Your task to perform on an android device: Open Google Chrome Image 0: 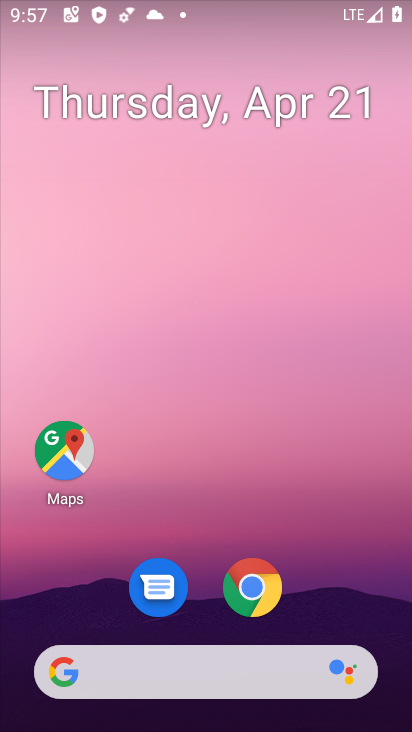
Step 0: drag from (339, 597) to (338, 116)
Your task to perform on an android device: Open Google Chrome Image 1: 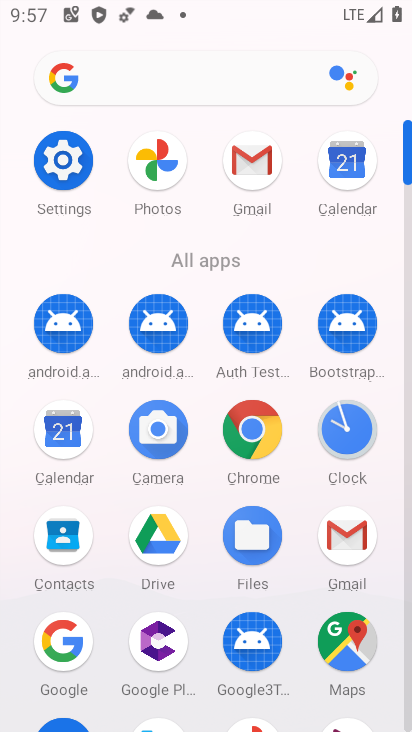
Step 1: click (278, 420)
Your task to perform on an android device: Open Google Chrome Image 2: 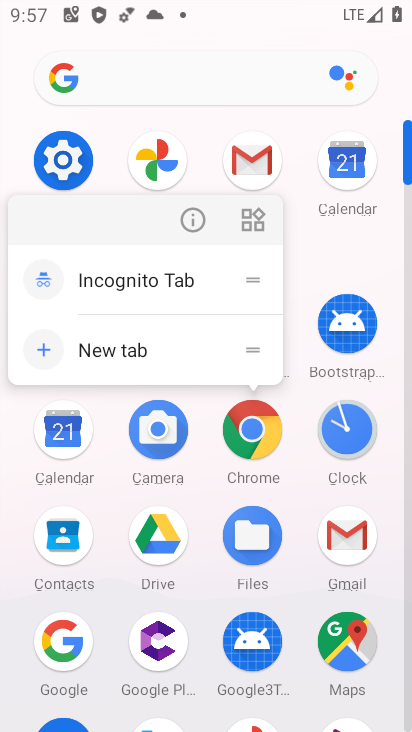
Step 2: click (254, 444)
Your task to perform on an android device: Open Google Chrome Image 3: 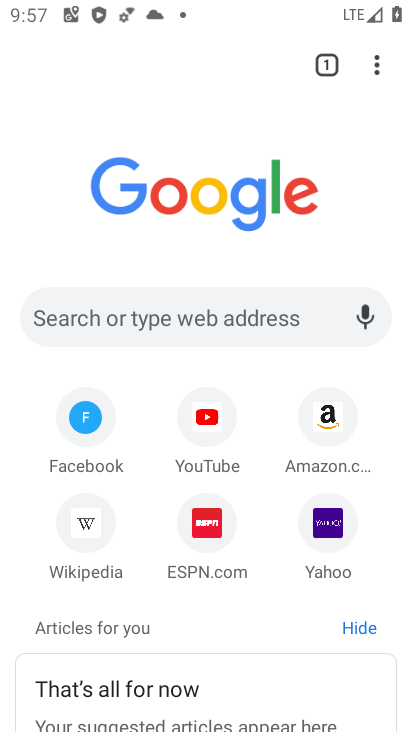
Step 3: task complete